Your task to perform on an android device: turn notification dots off Image 0: 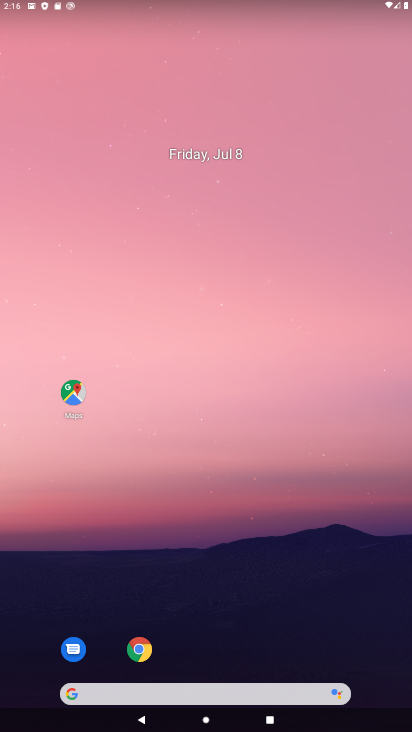
Step 0: drag from (357, 632) to (236, 155)
Your task to perform on an android device: turn notification dots off Image 1: 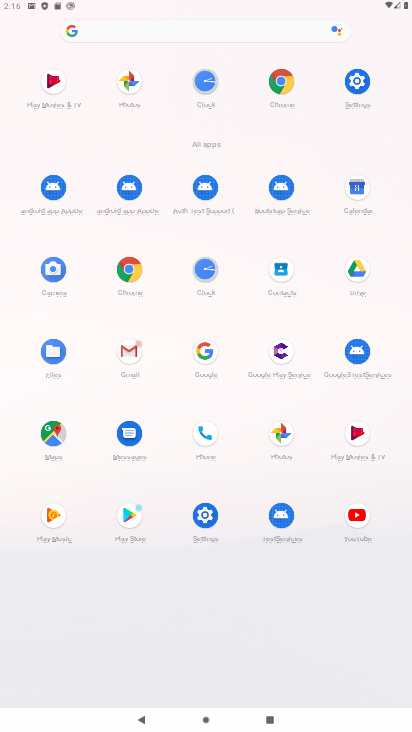
Step 1: click (356, 77)
Your task to perform on an android device: turn notification dots off Image 2: 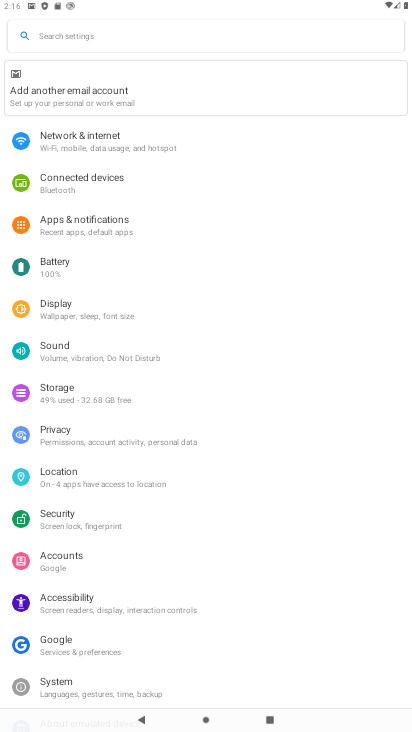
Step 2: click (117, 221)
Your task to perform on an android device: turn notification dots off Image 3: 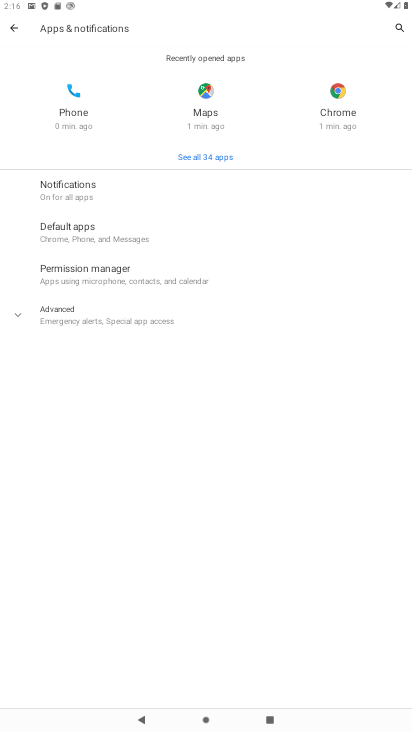
Step 3: click (89, 190)
Your task to perform on an android device: turn notification dots off Image 4: 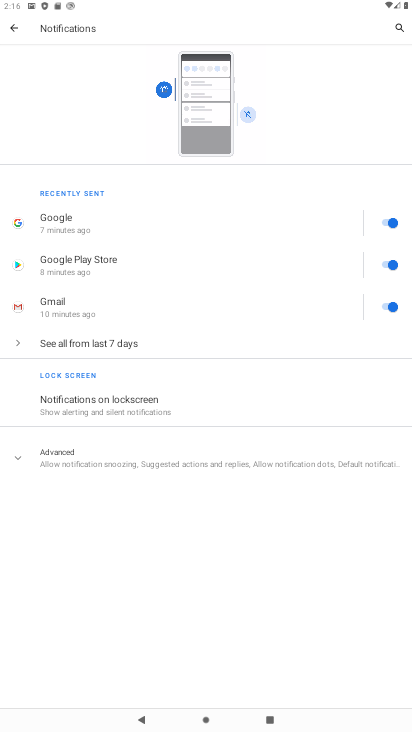
Step 4: click (108, 458)
Your task to perform on an android device: turn notification dots off Image 5: 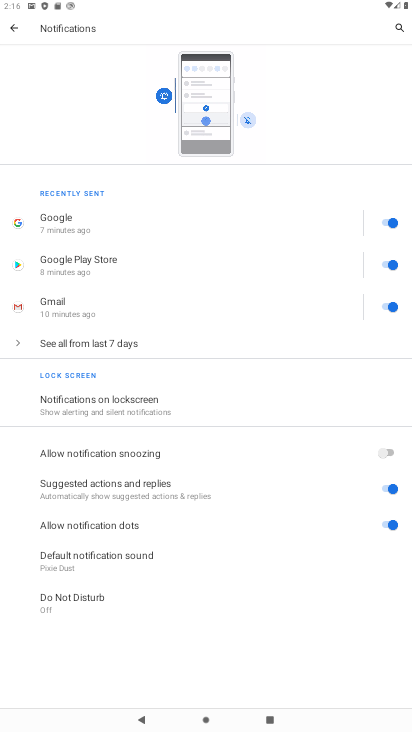
Step 5: click (393, 519)
Your task to perform on an android device: turn notification dots off Image 6: 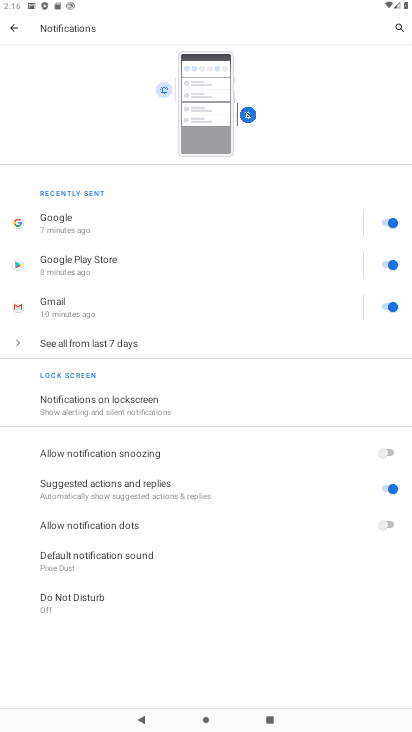
Step 6: task complete